Your task to perform on an android device: turn off picture-in-picture Image 0: 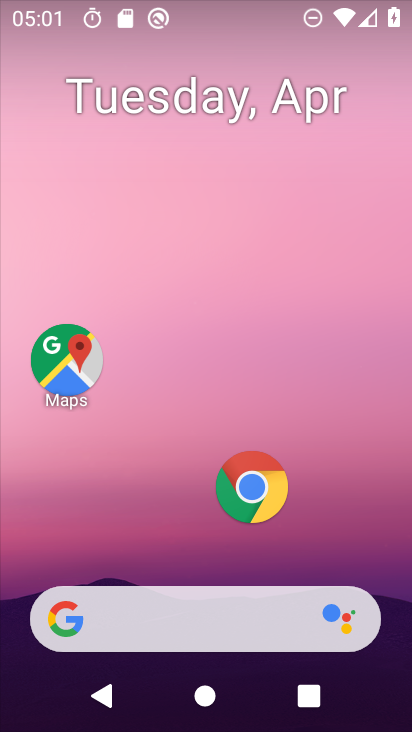
Step 0: drag from (201, 366) to (310, 0)
Your task to perform on an android device: turn off picture-in-picture Image 1: 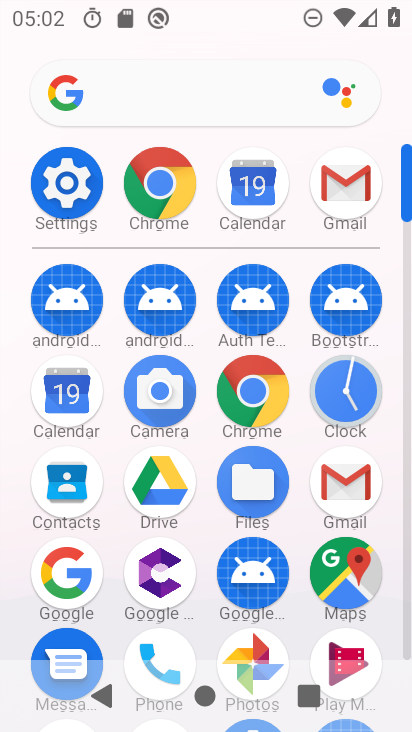
Step 1: click (84, 184)
Your task to perform on an android device: turn off picture-in-picture Image 2: 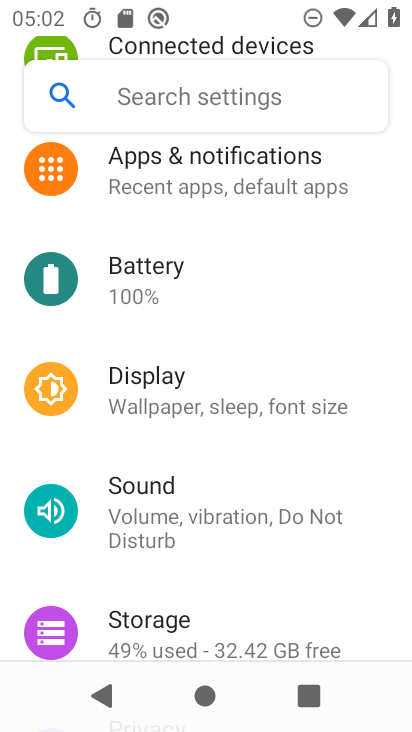
Step 2: click (250, 159)
Your task to perform on an android device: turn off picture-in-picture Image 3: 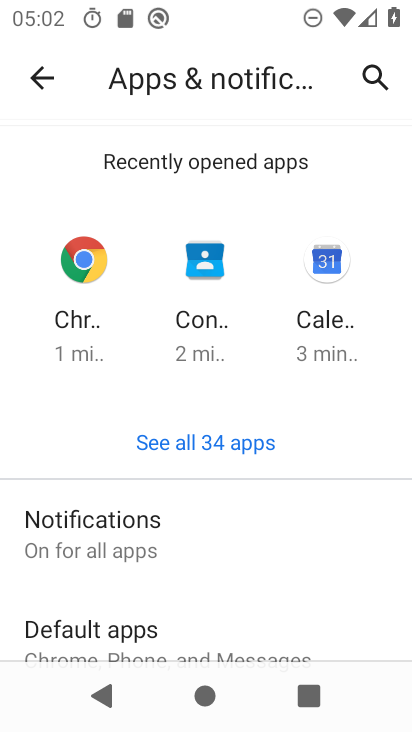
Step 3: drag from (113, 611) to (291, 116)
Your task to perform on an android device: turn off picture-in-picture Image 4: 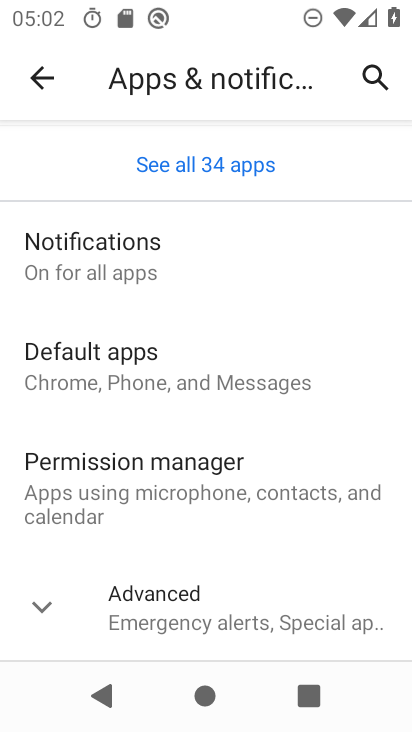
Step 4: click (160, 599)
Your task to perform on an android device: turn off picture-in-picture Image 5: 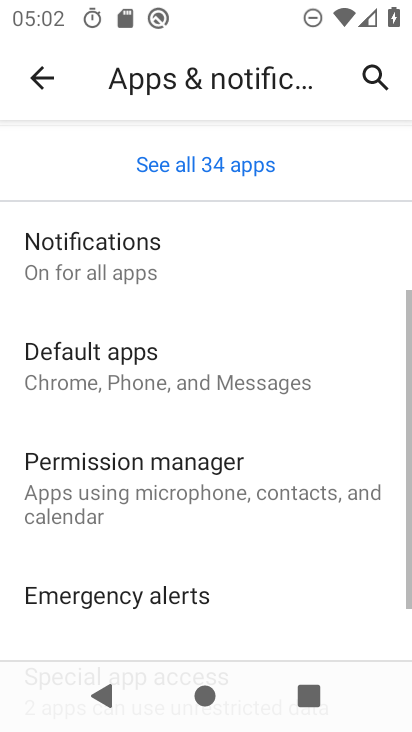
Step 5: drag from (175, 609) to (345, 34)
Your task to perform on an android device: turn off picture-in-picture Image 6: 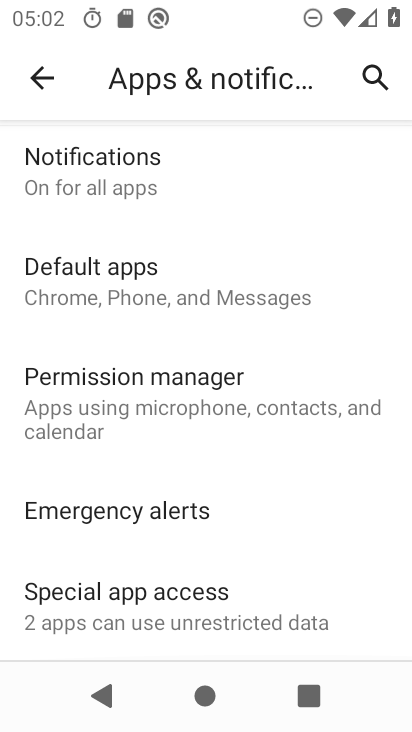
Step 6: click (132, 591)
Your task to perform on an android device: turn off picture-in-picture Image 7: 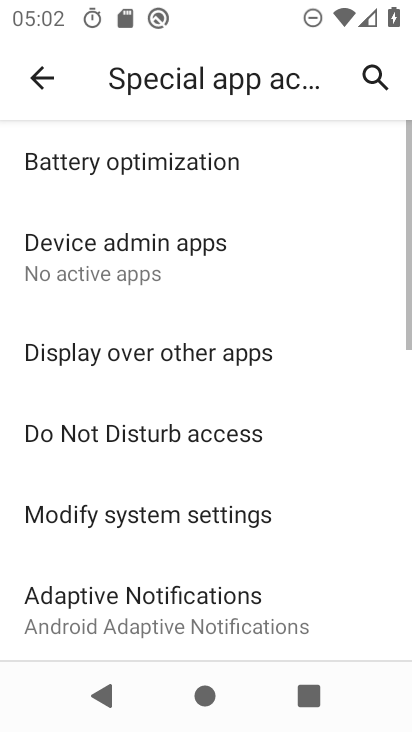
Step 7: drag from (148, 575) to (235, 96)
Your task to perform on an android device: turn off picture-in-picture Image 8: 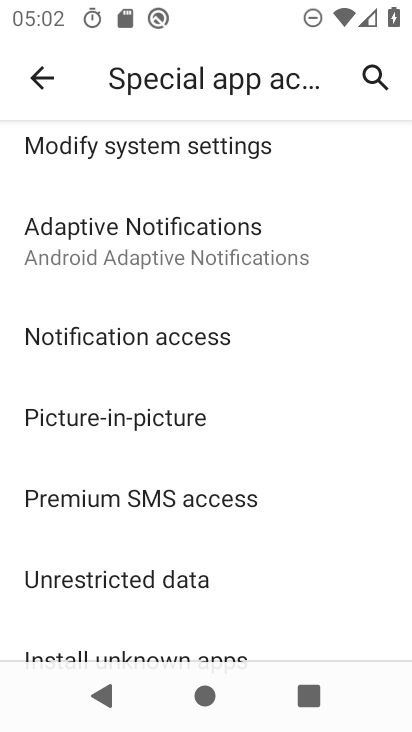
Step 8: click (123, 423)
Your task to perform on an android device: turn off picture-in-picture Image 9: 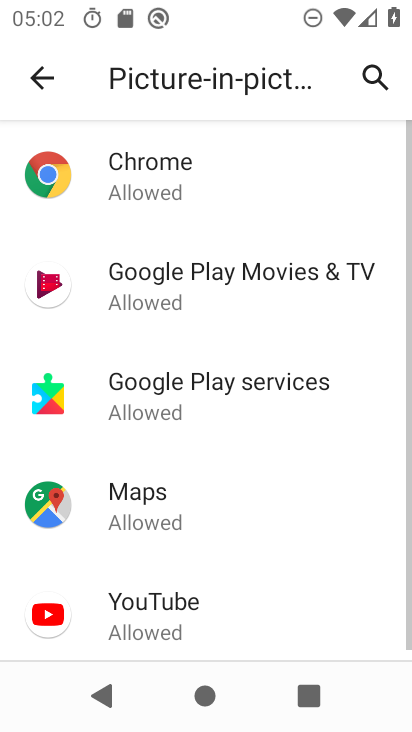
Step 9: click (141, 172)
Your task to perform on an android device: turn off picture-in-picture Image 10: 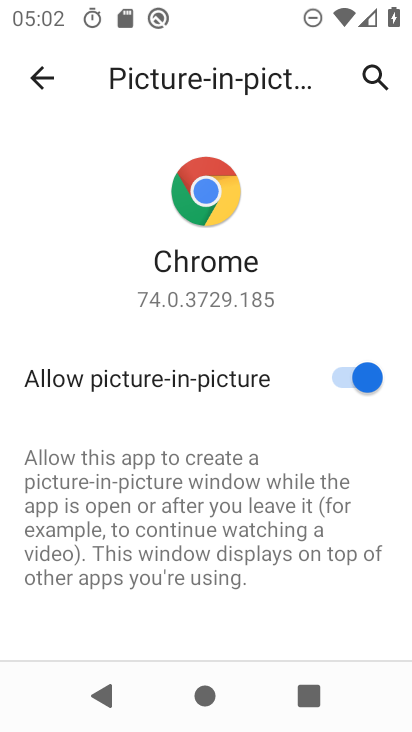
Step 10: click (352, 372)
Your task to perform on an android device: turn off picture-in-picture Image 11: 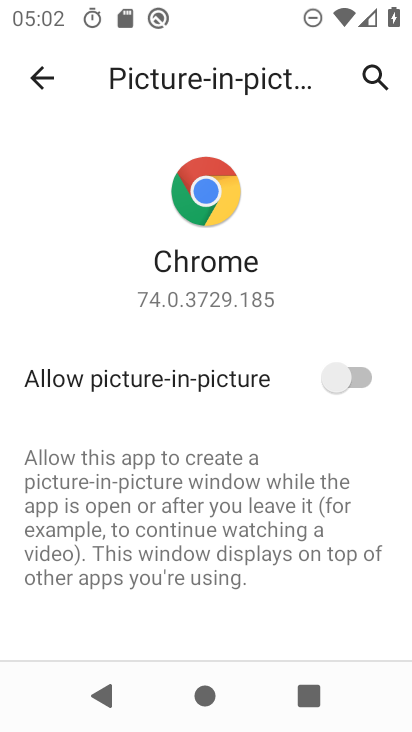
Step 11: task complete